Your task to perform on an android device: Go to internet settings Image 0: 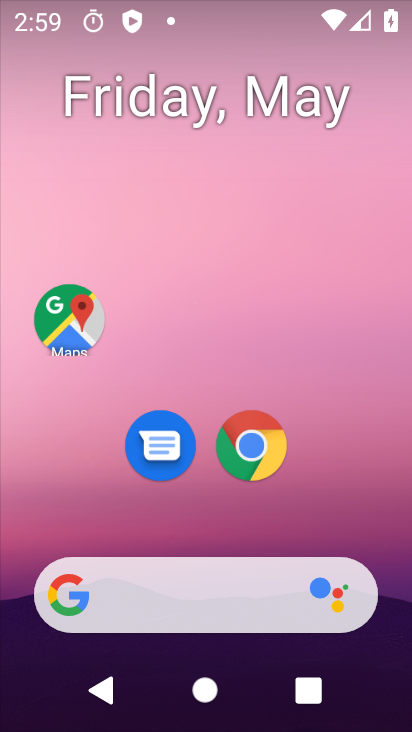
Step 0: drag from (212, 613) to (114, 8)
Your task to perform on an android device: Go to internet settings Image 1: 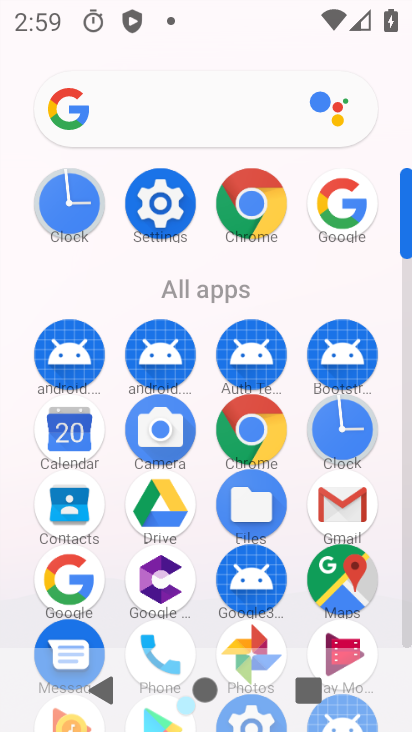
Step 1: click (188, 219)
Your task to perform on an android device: Go to internet settings Image 2: 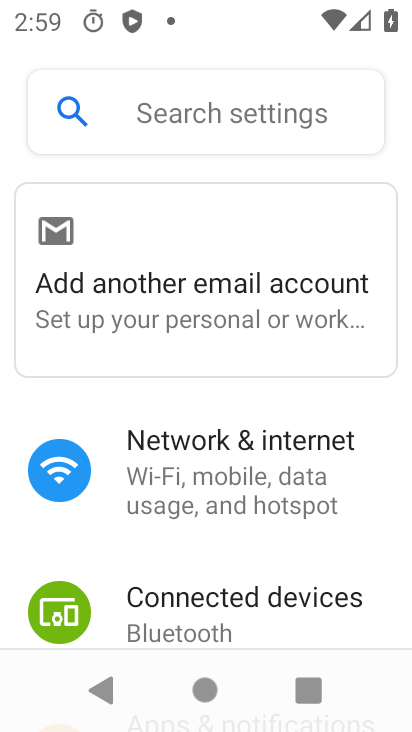
Step 2: drag from (275, 566) to (165, 242)
Your task to perform on an android device: Go to internet settings Image 3: 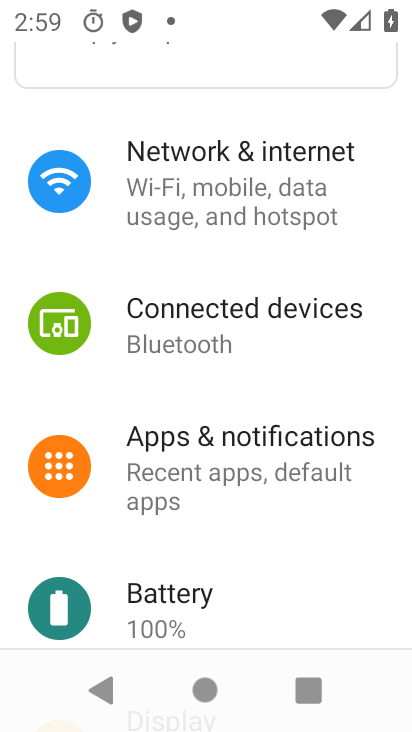
Step 3: click (236, 203)
Your task to perform on an android device: Go to internet settings Image 4: 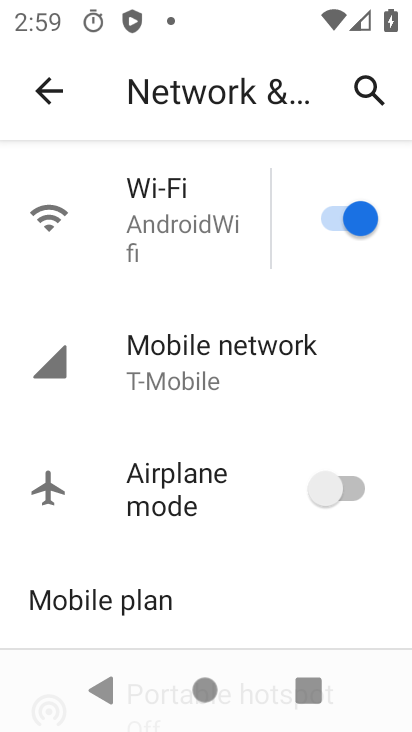
Step 4: click (279, 384)
Your task to perform on an android device: Go to internet settings Image 5: 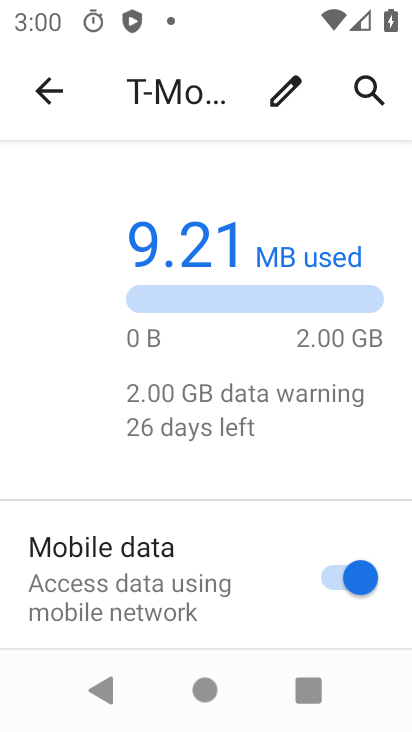
Step 5: task complete